Your task to perform on an android device: find which apps use the phone's location Image 0: 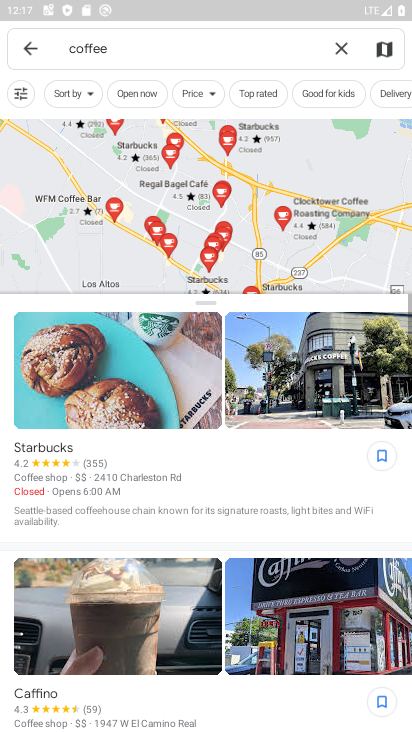
Step 0: press home button
Your task to perform on an android device: find which apps use the phone's location Image 1: 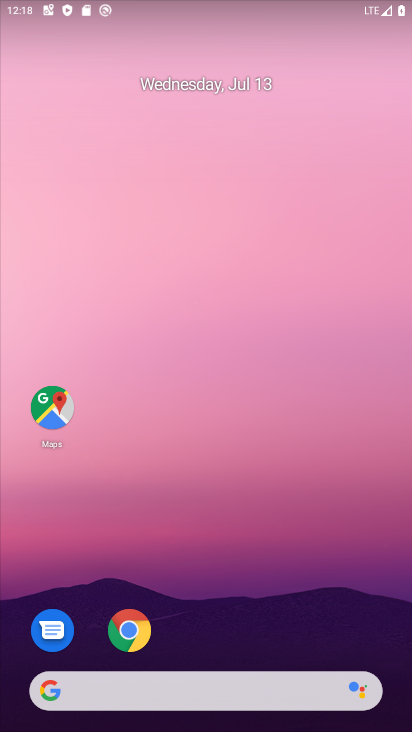
Step 1: drag from (394, 624) to (238, 12)
Your task to perform on an android device: find which apps use the phone's location Image 2: 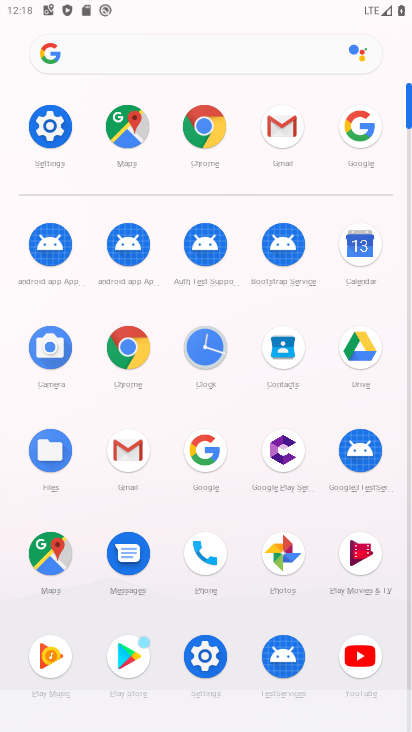
Step 2: click (51, 132)
Your task to perform on an android device: find which apps use the phone's location Image 3: 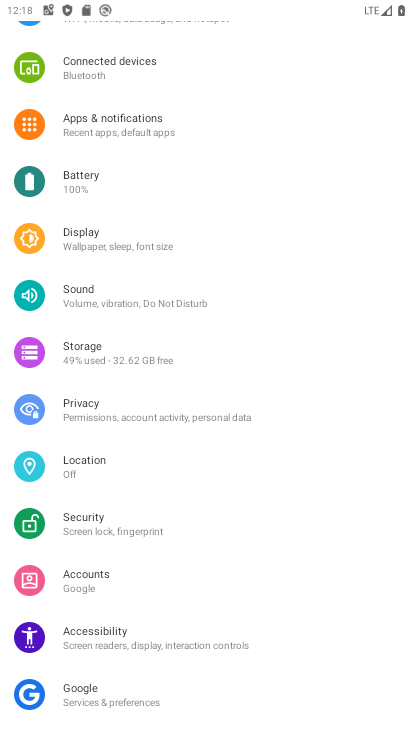
Step 3: click (116, 461)
Your task to perform on an android device: find which apps use the phone's location Image 4: 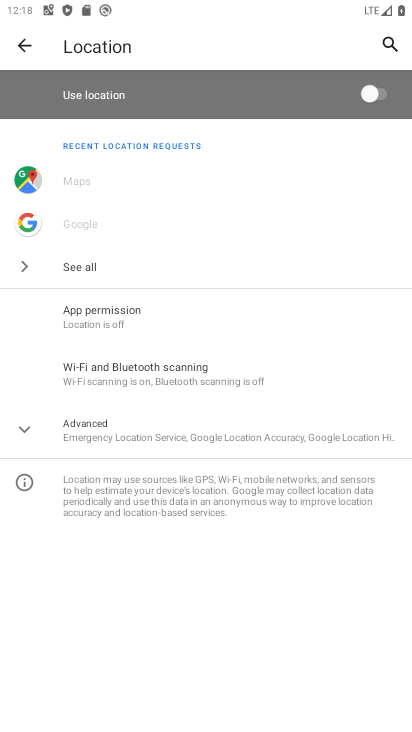
Step 4: click (105, 333)
Your task to perform on an android device: find which apps use the phone's location Image 5: 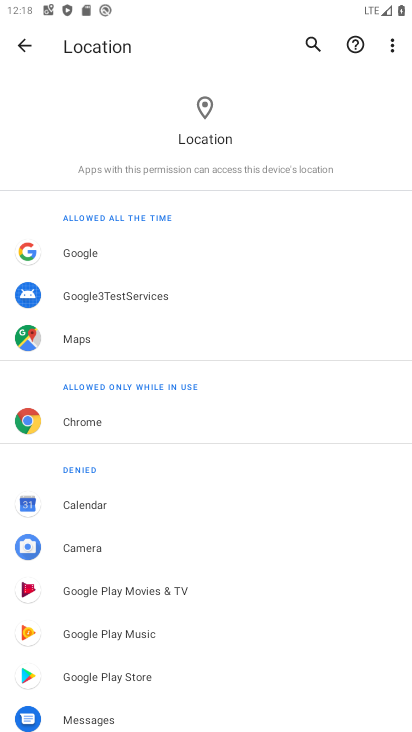
Step 5: drag from (74, 643) to (106, 342)
Your task to perform on an android device: find which apps use the phone's location Image 6: 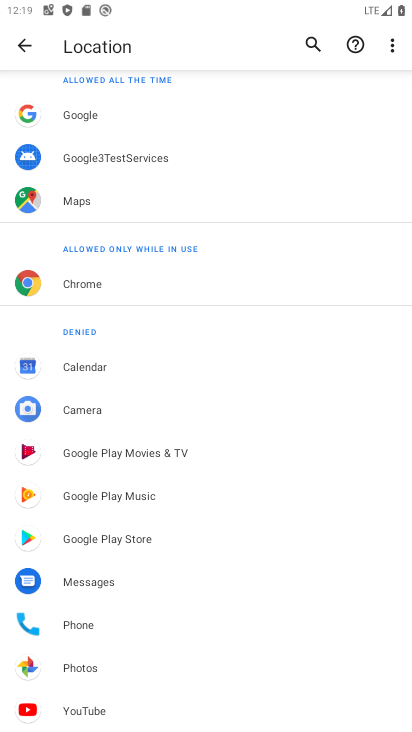
Step 6: click (67, 622)
Your task to perform on an android device: find which apps use the phone's location Image 7: 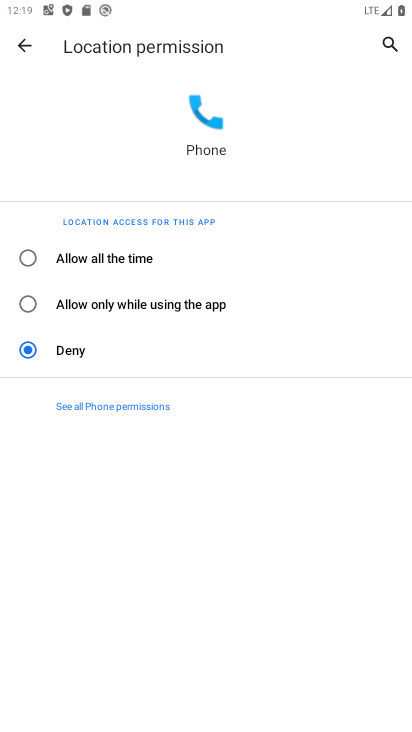
Step 7: click (76, 247)
Your task to perform on an android device: find which apps use the phone's location Image 8: 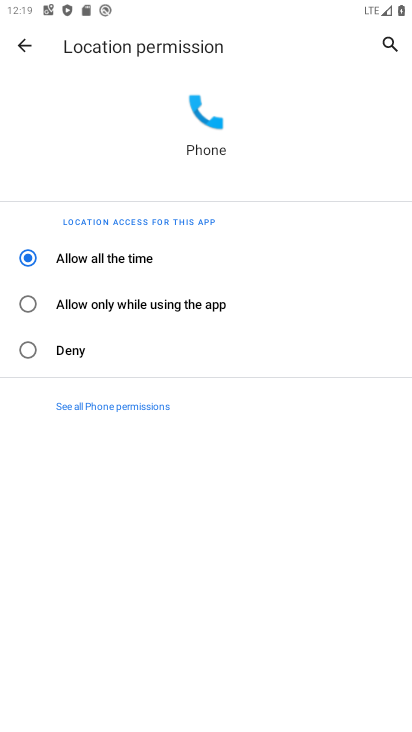
Step 8: task complete